Your task to perform on an android device: Show me popular games on the Play Store Image 0: 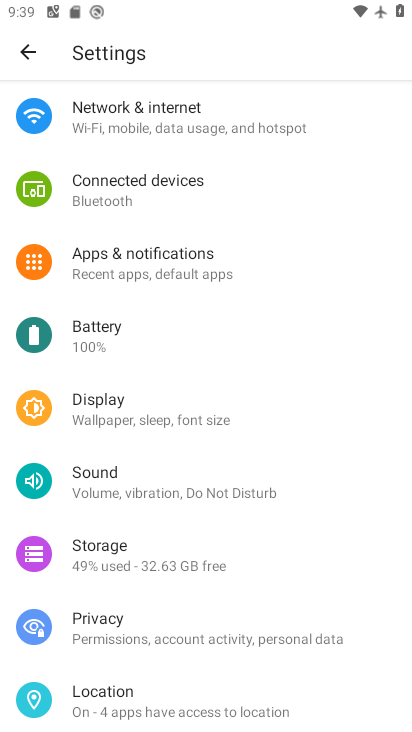
Step 0: press home button
Your task to perform on an android device: Show me popular games on the Play Store Image 1: 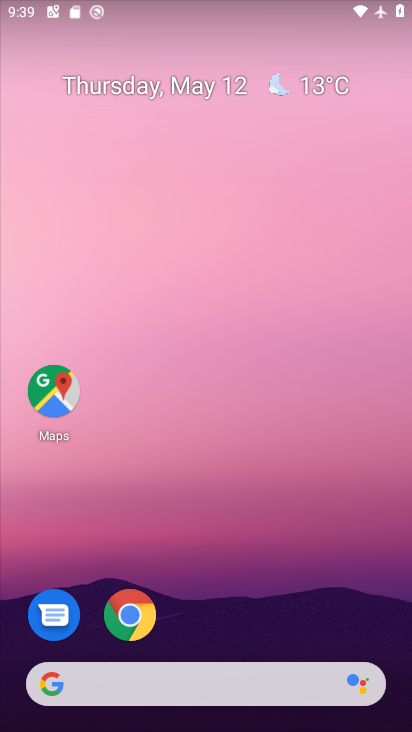
Step 1: drag from (245, 550) to (111, 0)
Your task to perform on an android device: Show me popular games on the Play Store Image 2: 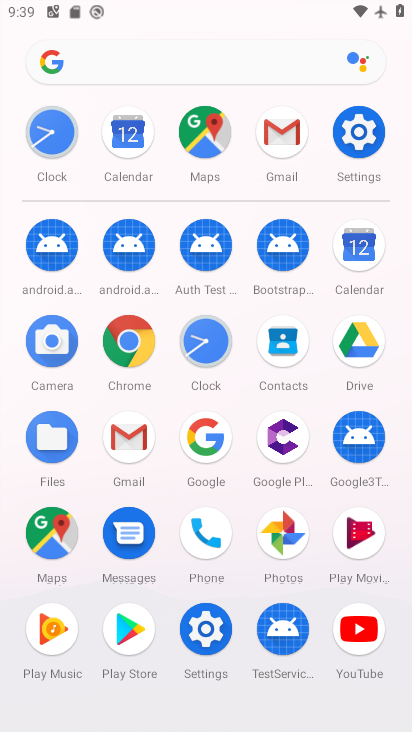
Step 2: click (129, 635)
Your task to perform on an android device: Show me popular games on the Play Store Image 3: 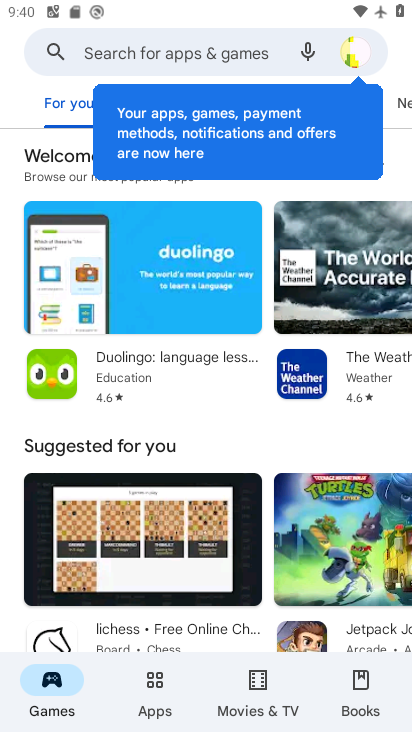
Step 3: task complete